Your task to perform on an android device: show emergency info Image 0: 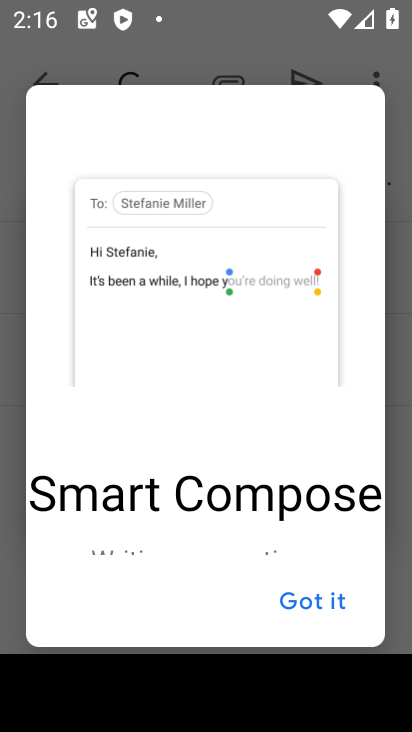
Step 0: press home button
Your task to perform on an android device: show emergency info Image 1: 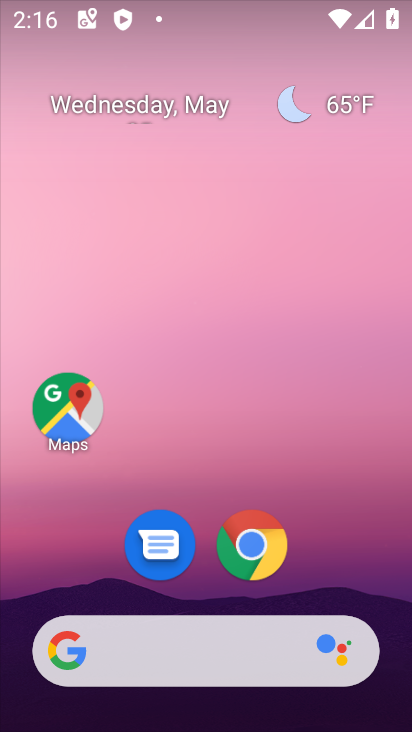
Step 1: drag from (302, 462) to (144, 33)
Your task to perform on an android device: show emergency info Image 2: 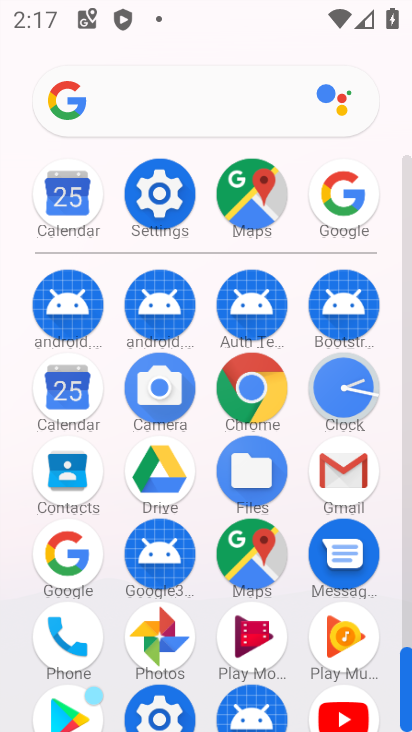
Step 2: click (161, 179)
Your task to perform on an android device: show emergency info Image 3: 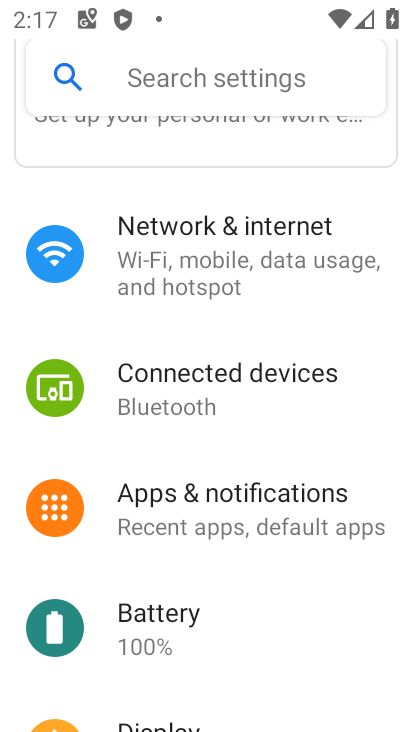
Step 3: drag from (275, 601) to (275, 29)
Your task to perform on an android device: show emergency info Image 4: 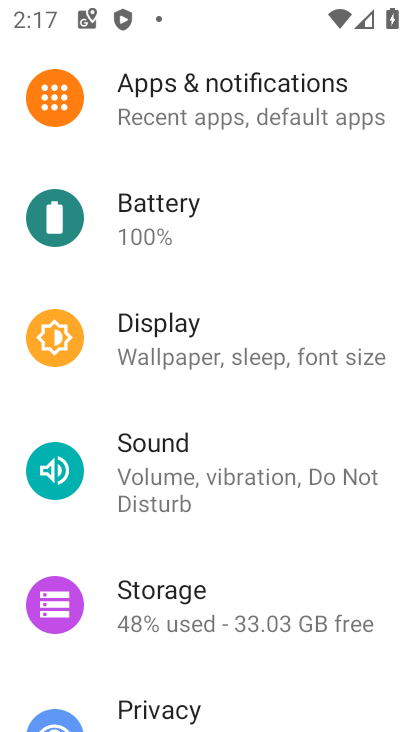
Step 4: drag from (245, 597) to (204, 81)
Your task to perform on an android device: show emergency info Image 5: 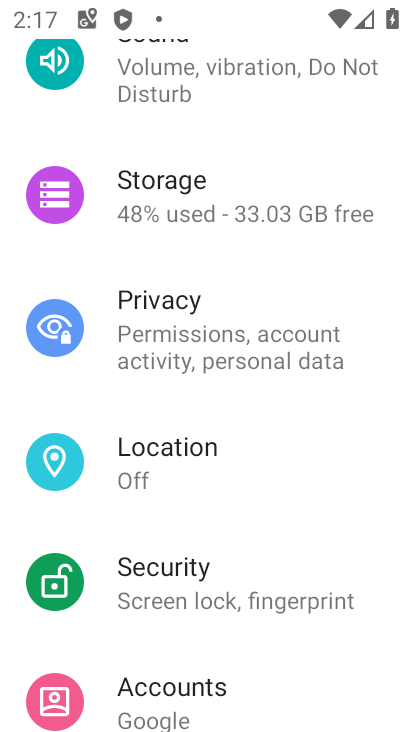
Step 5: drag from (236, 601) to (265, 70)
Your task to perform on an android device: show emergency info Image 6: 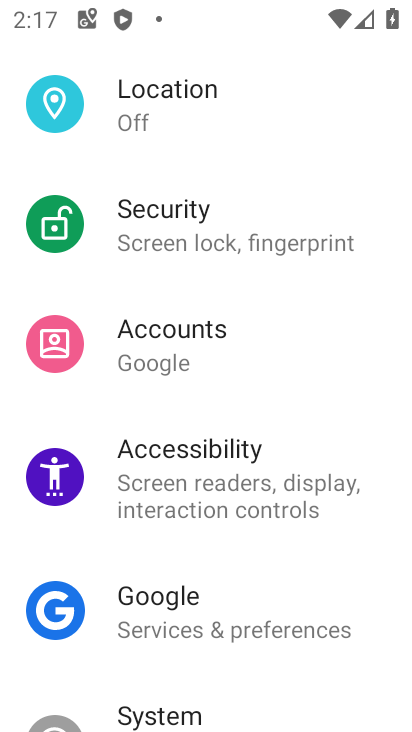
Step 6: drag from (301, 534) to (300, 150)
Your task to perform on an android device: show emergency info Image 7: 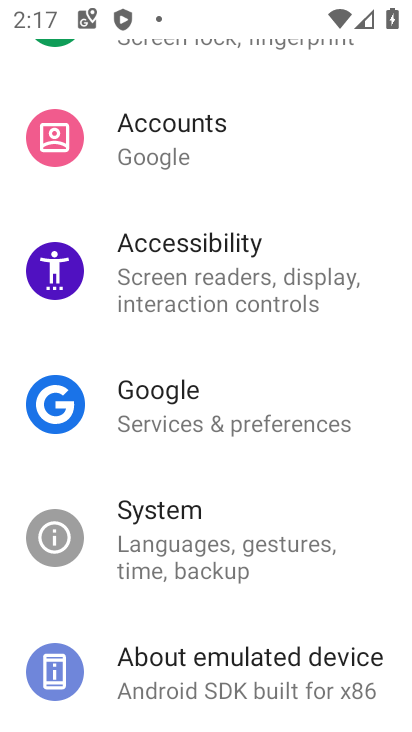
Step 7: click (248, 675)
Your task to perform on an android device: show emergency info Image 8: 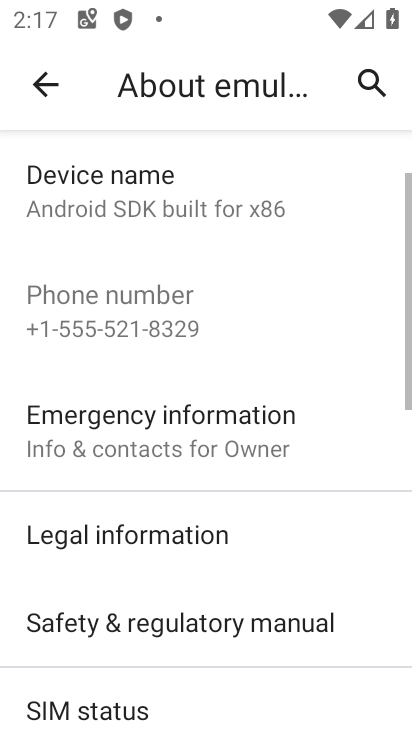
Step 8: click (175, 436)
Your task to perform on an android device: show emergency info Image 9: 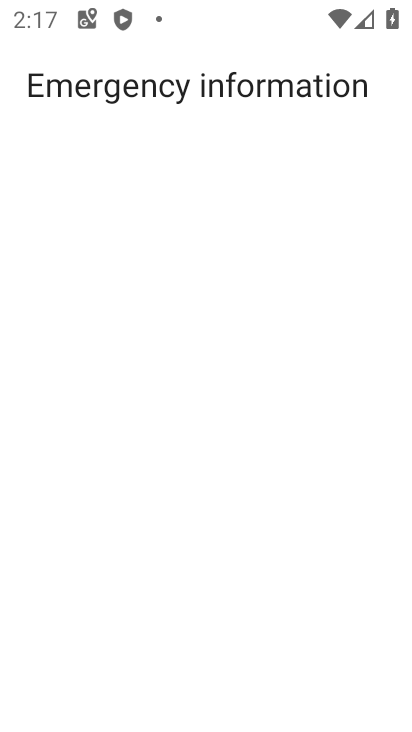
Step 9: task complete